Your task to perform on an android device: Toggle the flashlight Image 0: 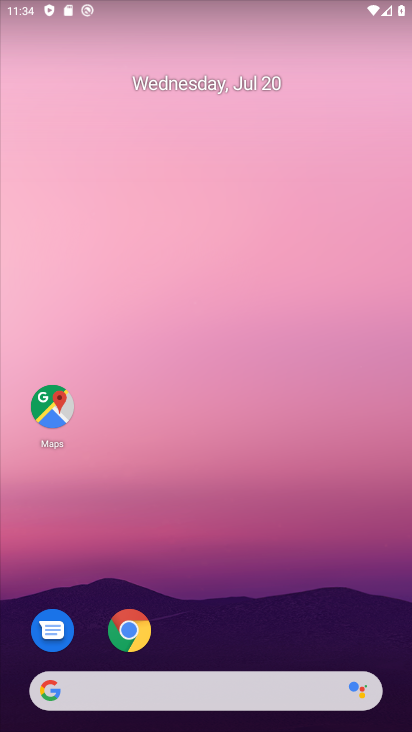
Step 0: drag from (185, 616) to (212, 138)
Your task to perform on an android device: Toggle the flashlight Image 1: 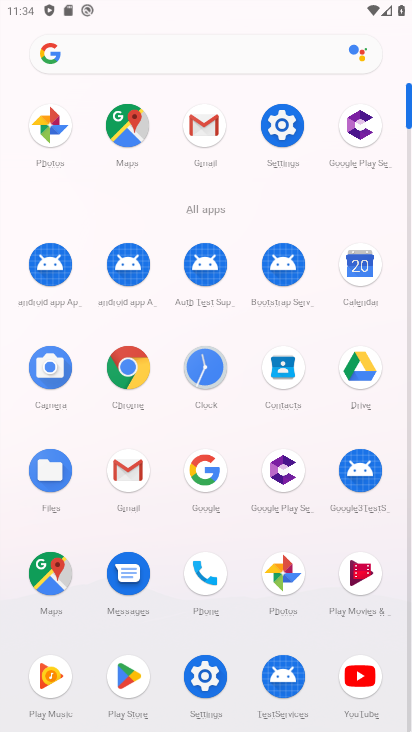
Step 1: click (191, 668)
Your task to perform on an android device: Toggle the flashlight Image 2: 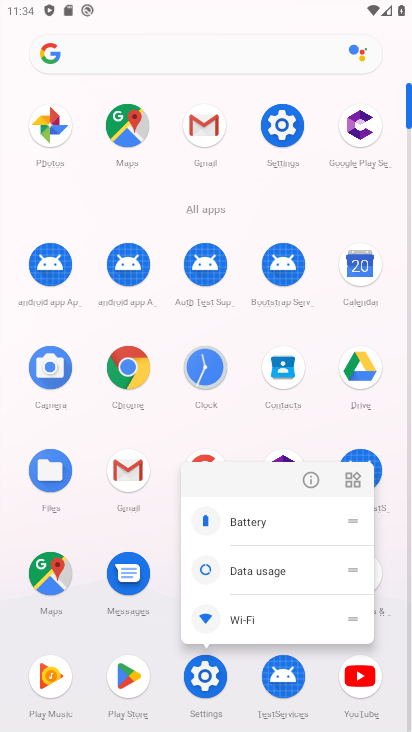
Step 2: click (306, 473)
Your task to perform on an android device: Toggle the flashlight Image 3: 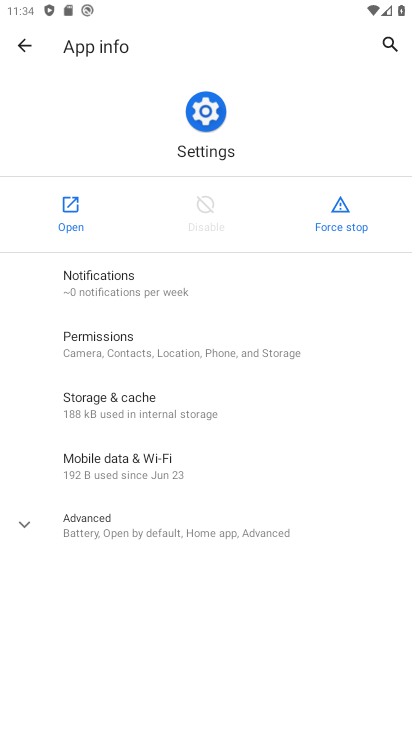
Step 3: click (75, 210)
Your task to perform on an android device: Toggle the flashlight Image 4: 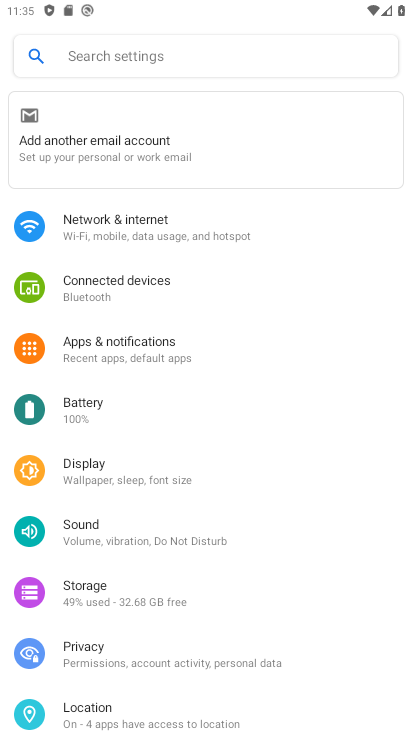
Step 4: click (159, 58)
Your task to perform on an android device: Toggle the flashlight Image 5: 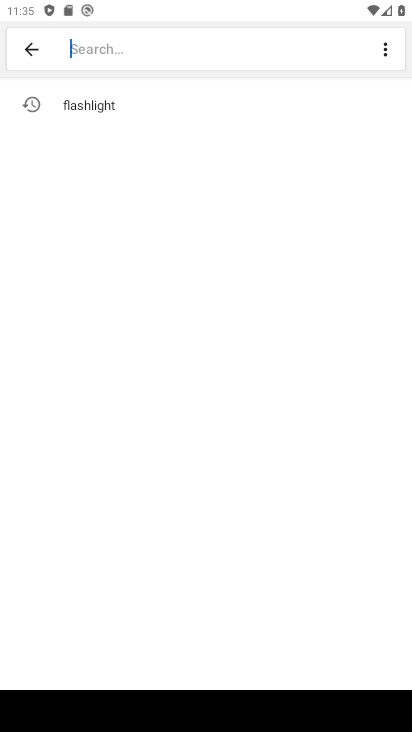
Step 5: click (109, 115)
Your task to perform on an android device: Toggle the flashlight Image 6: 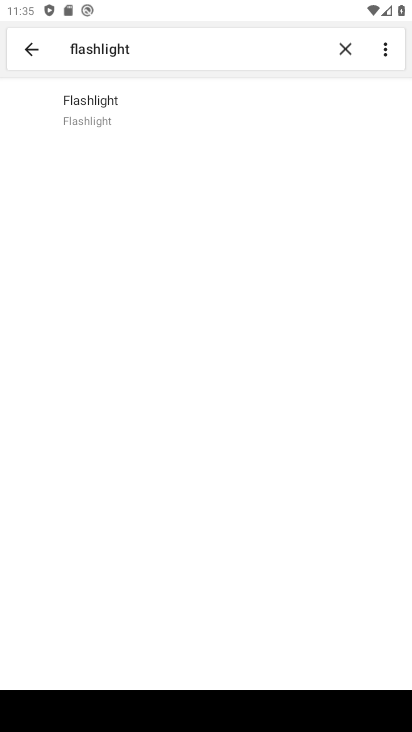
Step 6: task complete